Your task to perform on an android device: show emergency info Image 0: 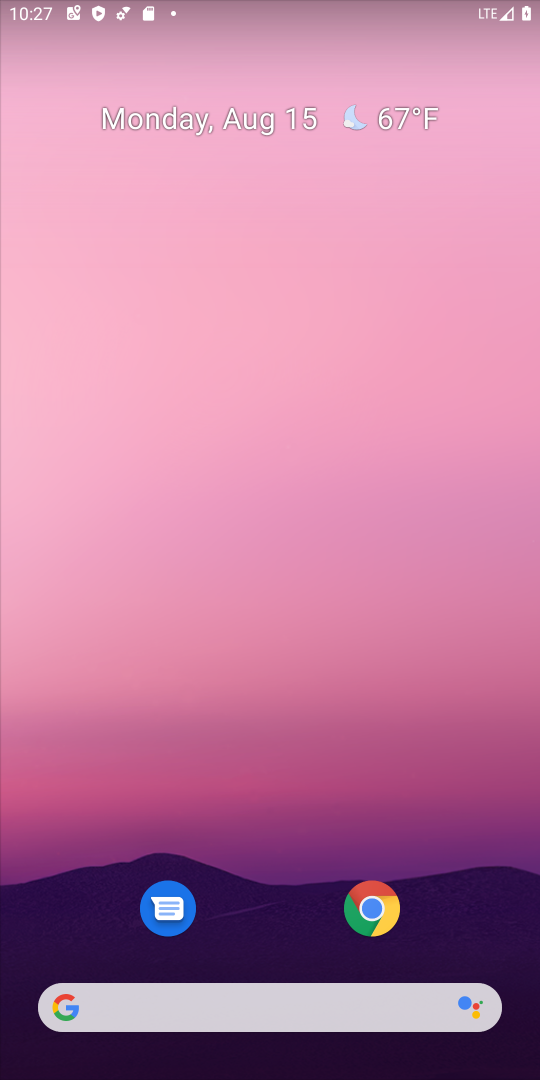
Step 0: drag from (277, 960) to (354, 181)
Your task to perform on an android device: show emergency info Image 1: 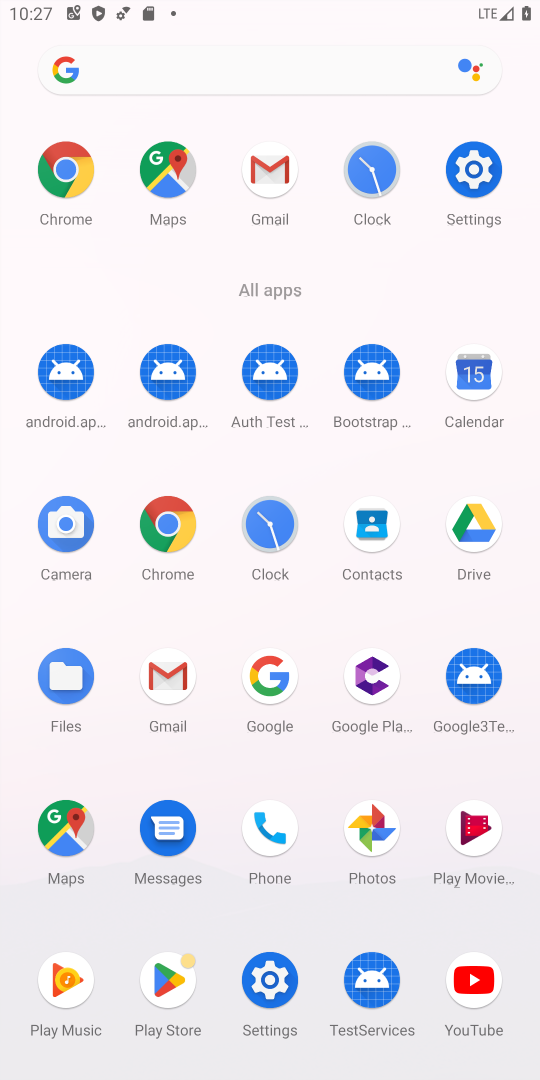
Step 1: click (477, 193)
Your task to perform on an android device: show emergency info Image 2: 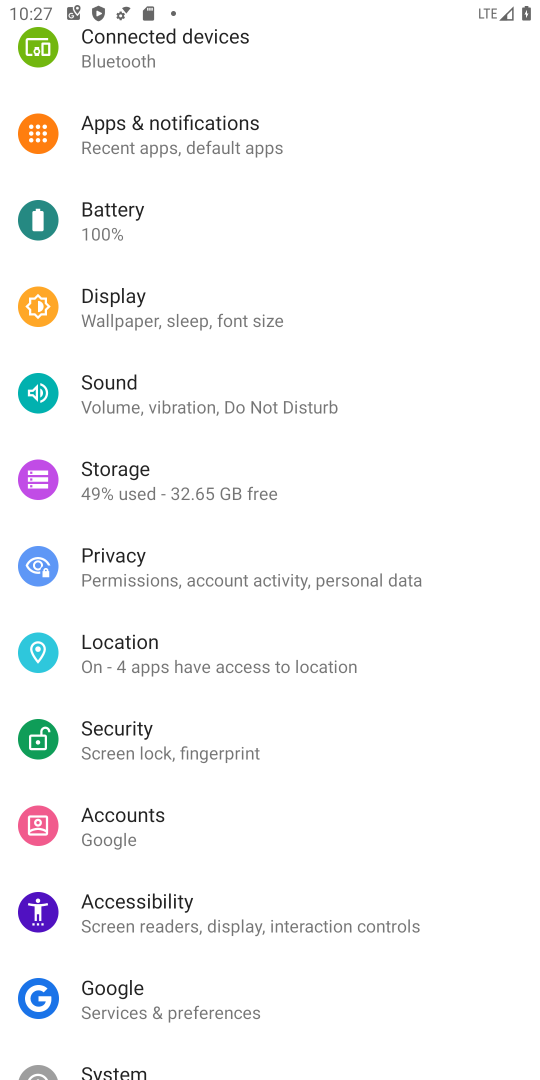
Step 2: drag from (165, 1031) to (336, 157)
Your task to perform on an android device: show emergency info Image 3: 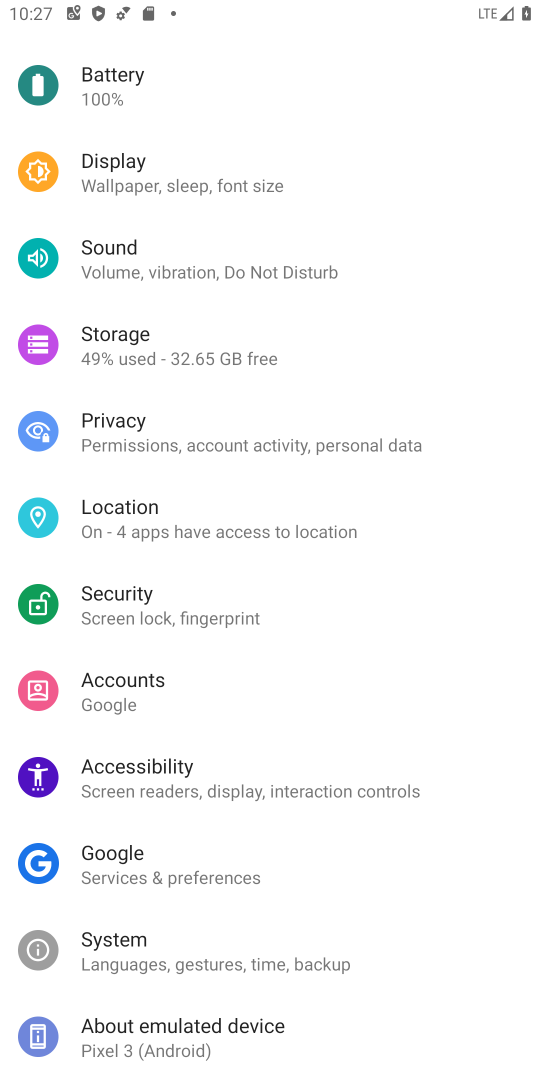
Step 3: click (190, 1047)
Your task to perform on an android device: show emergency info Image 4: 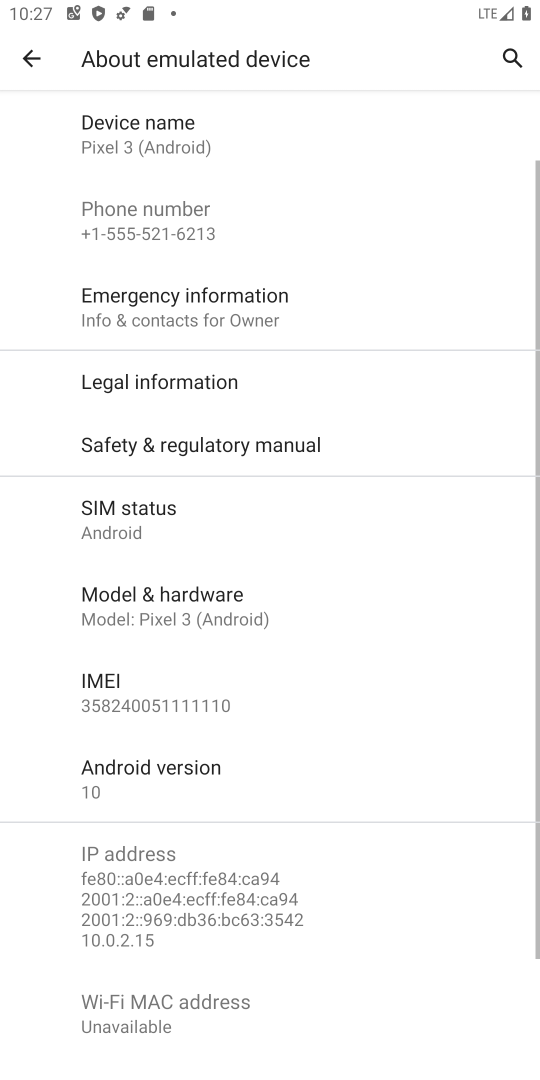
Step 4: click (202, 297)
Your task to perform on an android device: show emergency info Image 5: 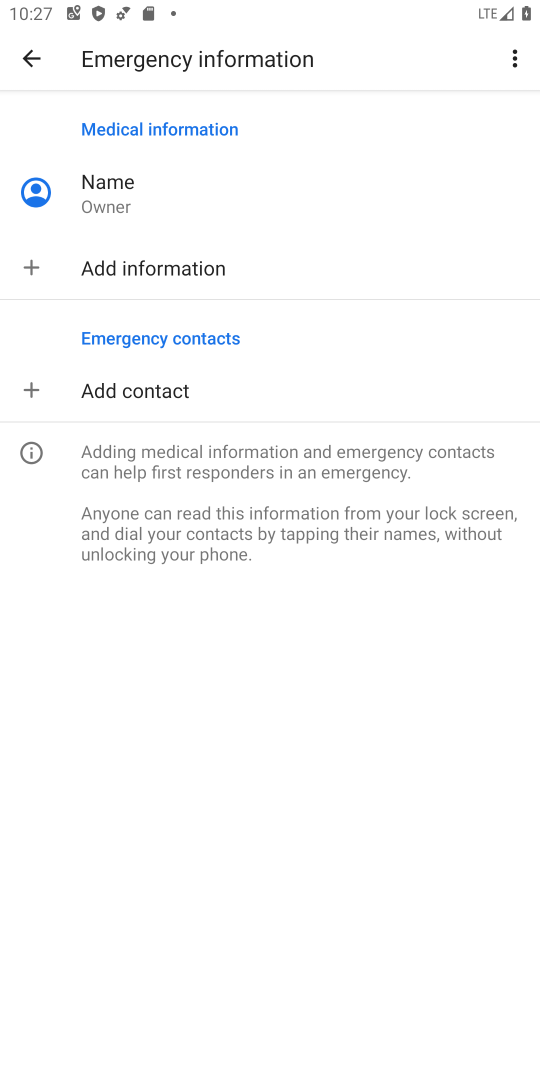
Step 5: task complete